Your task to perform on an android device: empty trash in google photos Image 0: 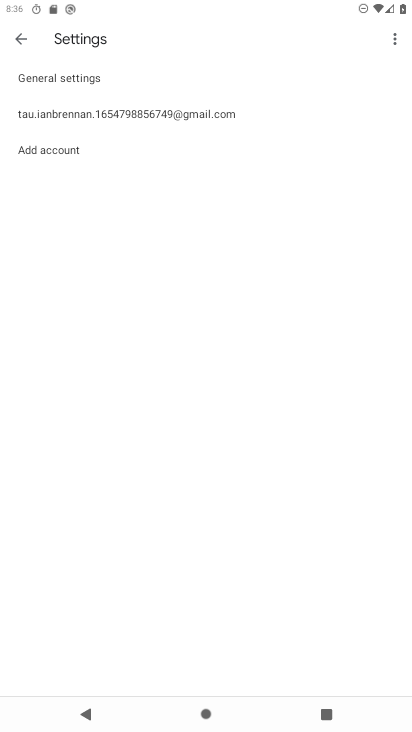
Step 0: press home button
Your task to perform on an android device: empty trash in google photos Image 1: 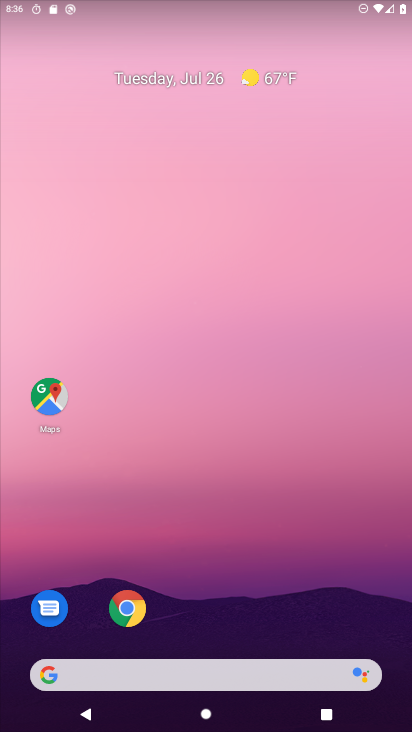
Step 1: drag from (301, 608) to (395, 5)
Your task to perform on an android device: empty trash in google photos Image 2: 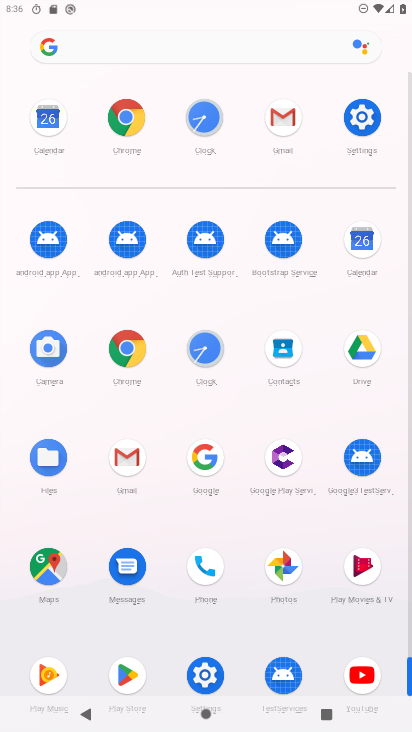
Step 2: click (284, 580)
Your task to perform on an android device: empty trash in google photos Image 3: 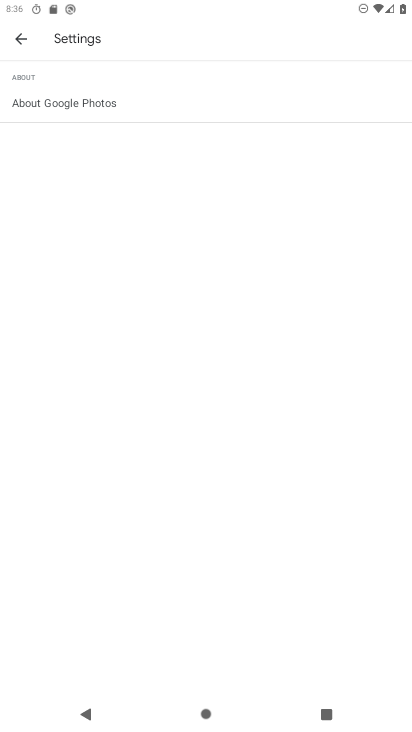
Step 3: click (23, 36)
Your task to perform on an android device: empty trash in google photos Image 4: 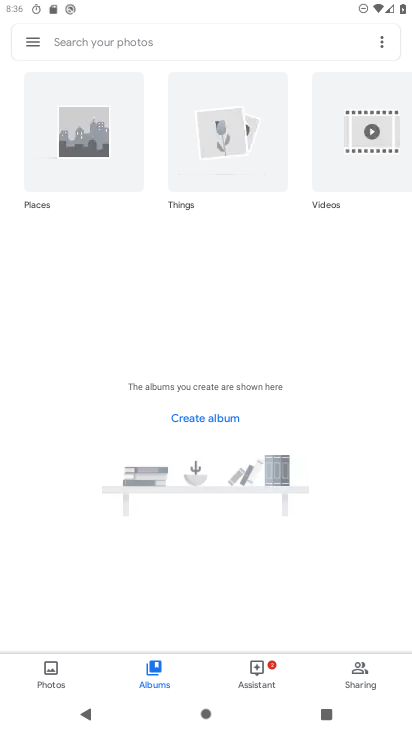
Step 4: click (23, 36)
Your task to perform on an android device: empty trash in google photos Image 5: 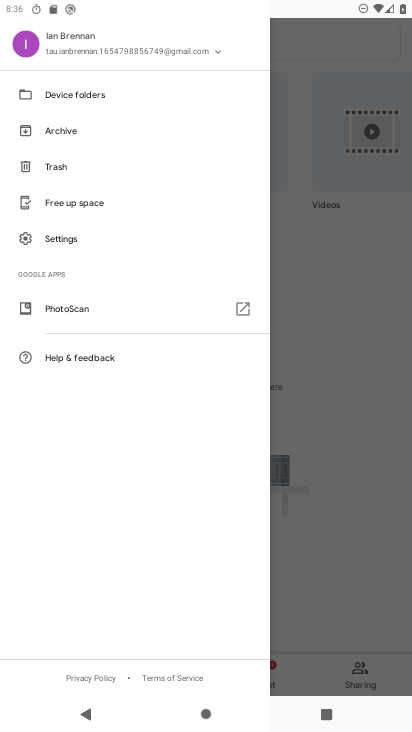
Step 5: click (67, 160)
Your task to perform on an android device: empty trash in google photos Image 6: 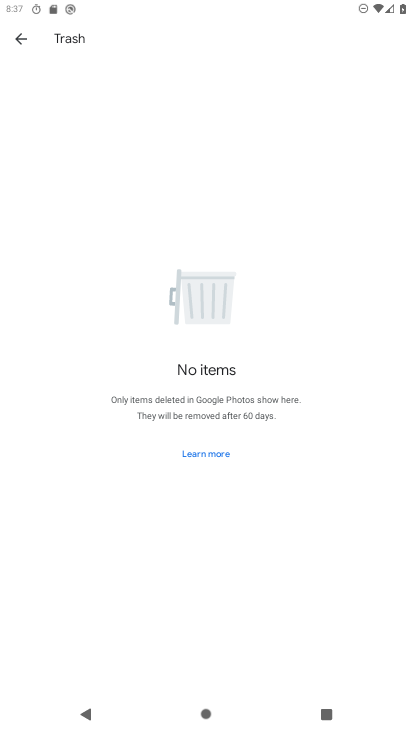
Step 6: task complete